Your task to perform on an android device: Show me productivity apps on the Play Store Image 0: 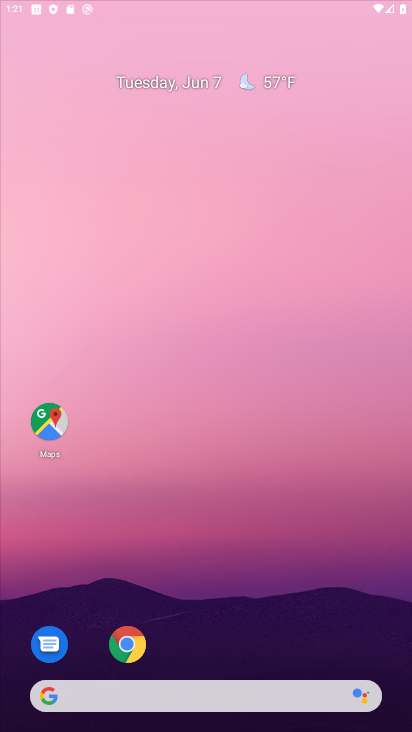
Step 0: click (162, 286)
Your task to perform on an android device: Show me productivity apps on the Play Store Image 1: 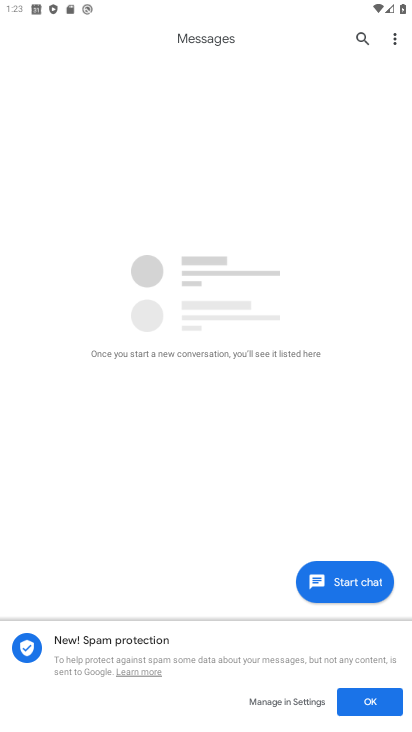
Step 1: press back button
Your task to perform on an android device: Show me productivity apps on the Play Store Image 2: 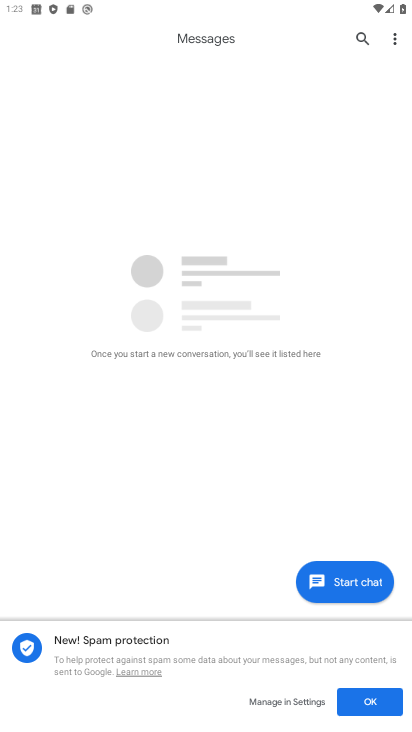
Step 2: press back button
Your task to perform on an android device: Show me productivity apps on the Play Store Image 3: 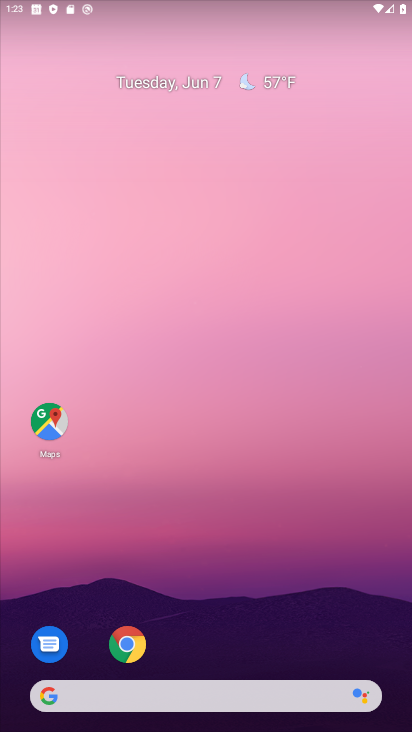
Step 3: press back button
Your task to perform on an android device: Show me productivity apps on the Play Store Image 4: 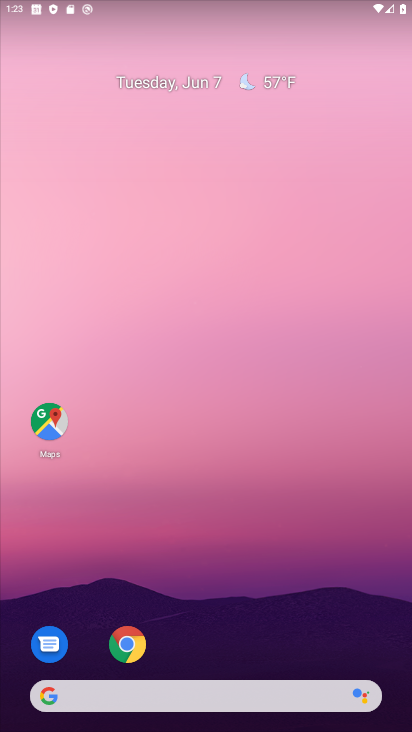
Step 4: press back button
Your task to perform on an android device: Show me productivity apps on the Play Store Image 5: 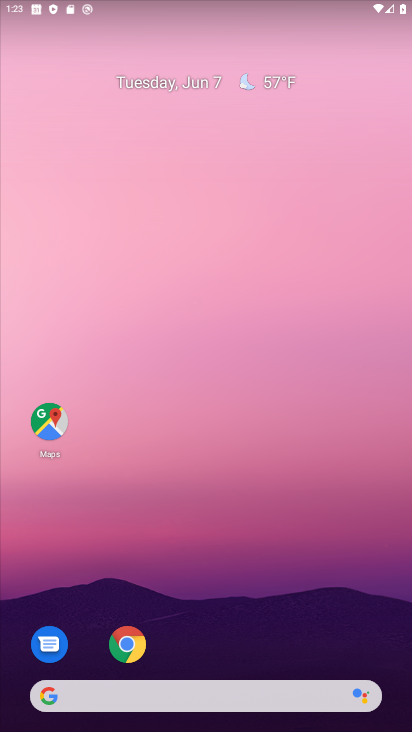
Step 5: press home button
Your task to perform on an android device: Show me productivity apps on the Play Store Image 6: 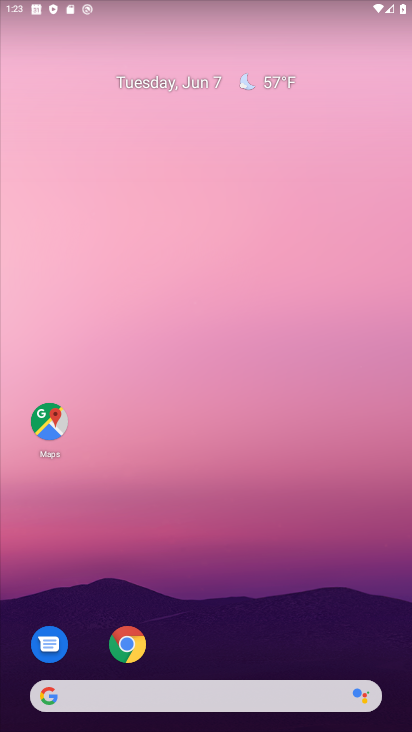
Step 6: drag from (248, 380) to (224, 66)
Your task to perform on an android device: Show me productivity apps on the Play Store Image 7: 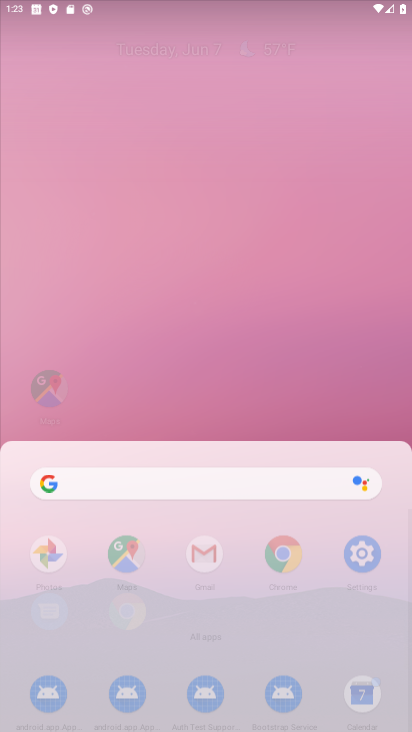
Step 7: drag from (257, 561) to (211, 32)
Your task to perform on an android device: Show me productivity apps on the Play Store Image 8: 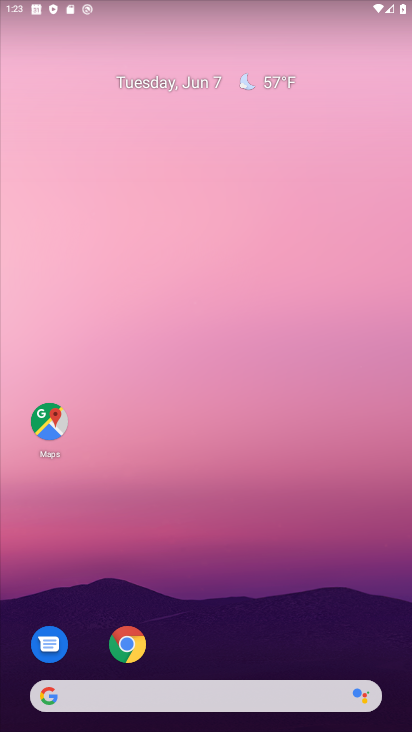
Step 8: drag from (268, 590) to (250, 61)
Your task to perform on an android device: Show me productivity apps on the Play Store Image 9: 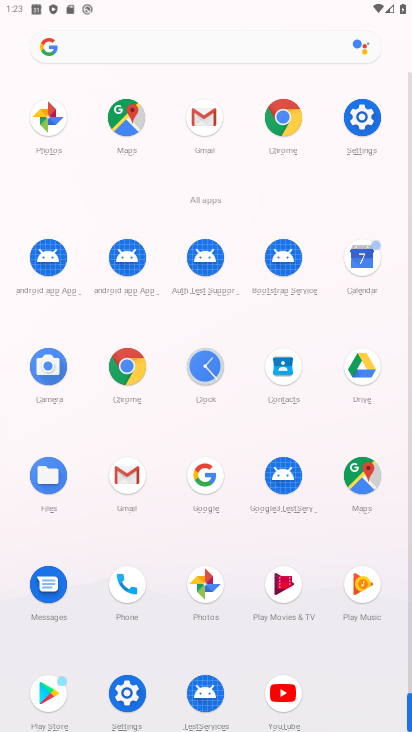
Step 9: drag from (216, 102) to (206, 31)
Your task to perform on an android device: Show me productivity apps on the Play Store Image 10: 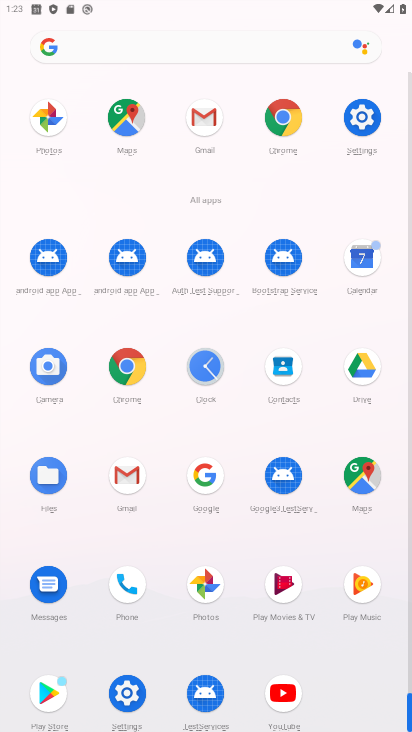
Step 10: click (51, 689)
Your task to perform on an android device: Show me productivity apps on the Play Store Image 11: 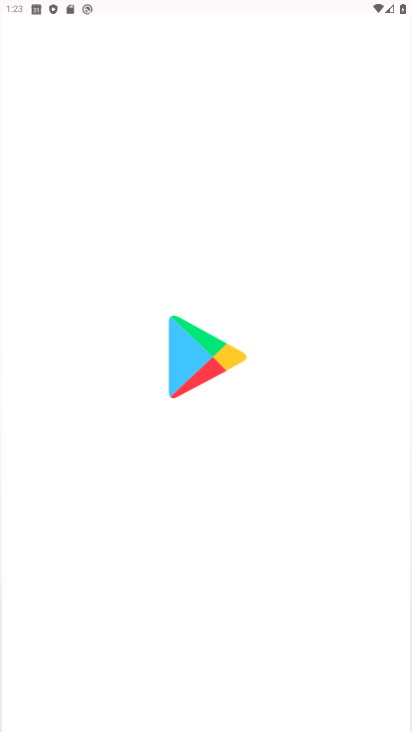
Step 11: click (51, 689)
Your task to perform on an android device: Show me productivity apps on the Play Store Image 12: 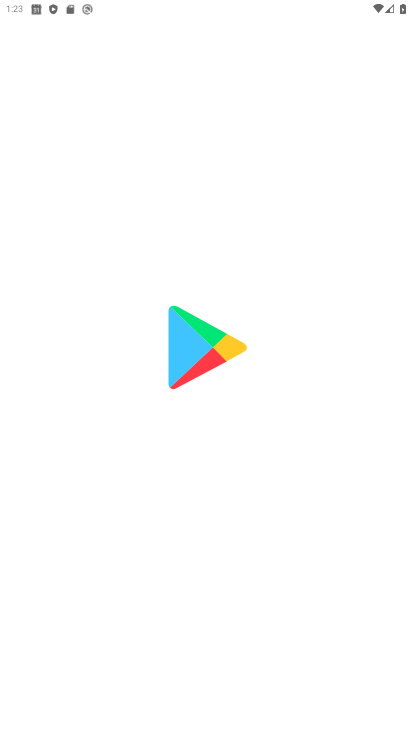
Step 12: click (51, 689)
Your task to perform on an android device: Show me productivity apps on the Play Store Image 13: 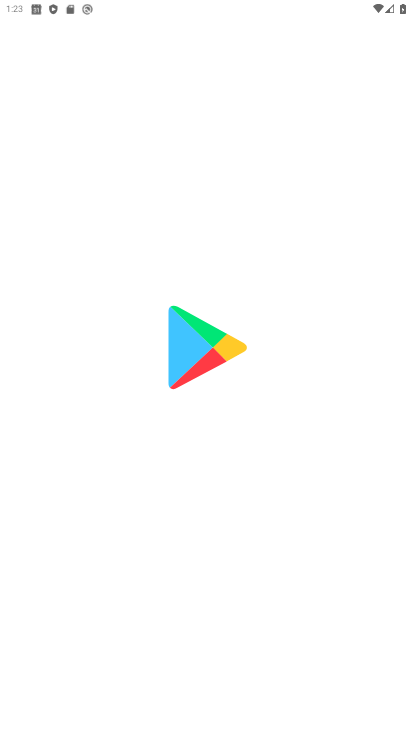
Step 13: click (51, 689)
Your task to perform on an android device: Show me productivity apps on the Play Store Image 14: 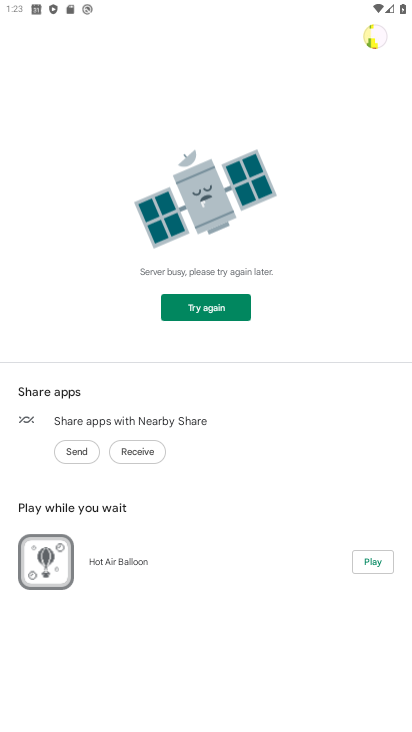
Step 14: task complete